Your task to perform on an android device: change timer sound Image 0: 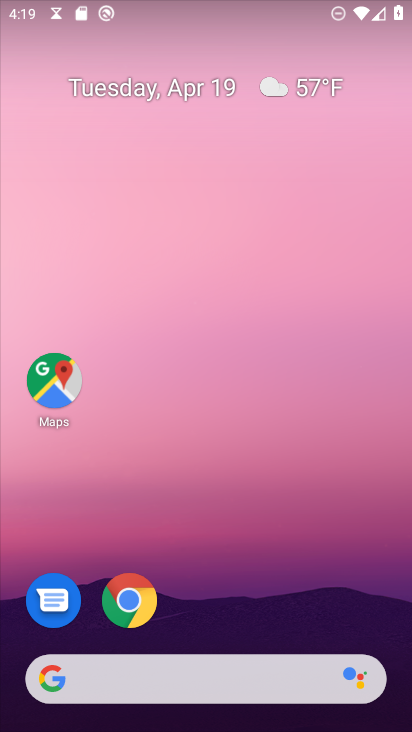
Step 0: drag from (317, 615) to (319, 72)
Your task to perform on an android device: change timer sound Image 1: 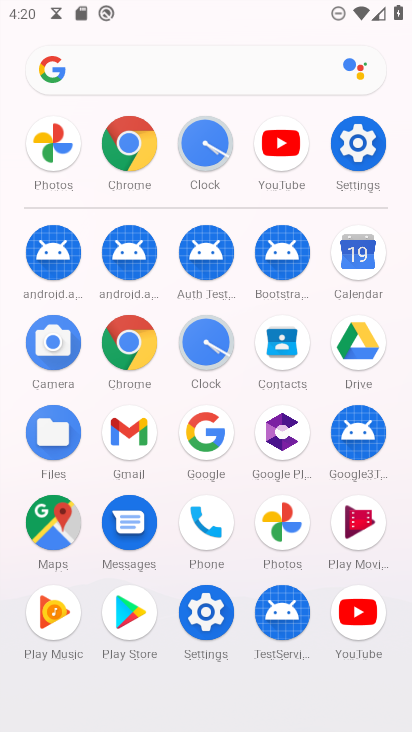
Step 1: click (210, 354)
Your task to perform on an android device: change timer sound Image 2: 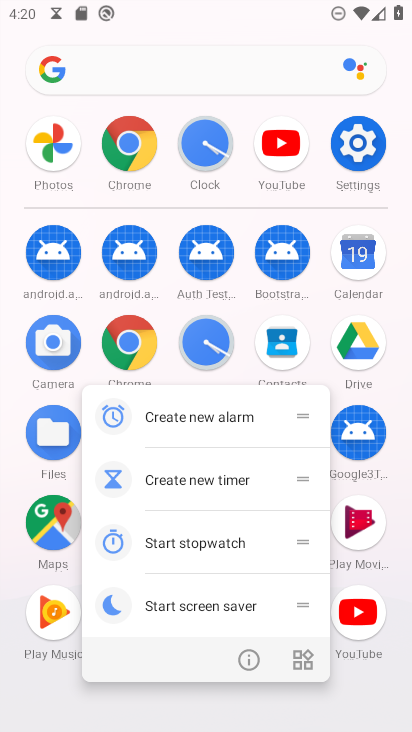
Step 2: click (214, 333)
Your task to perform on an android device: change timer sound Image 3: 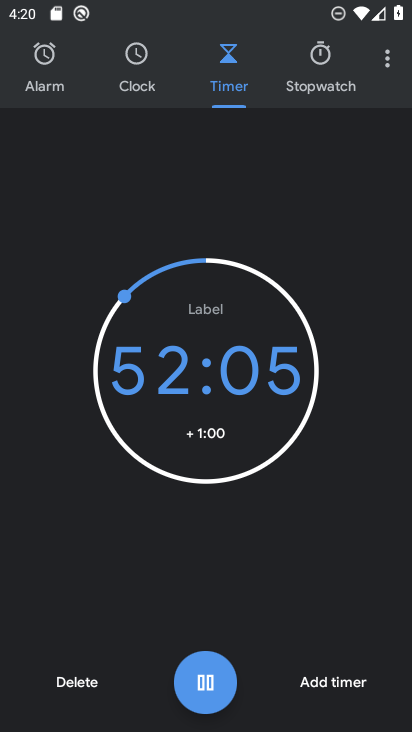
Step 3: click (384, 50)
Your task to perform on an android device: change timer sound Image 4: 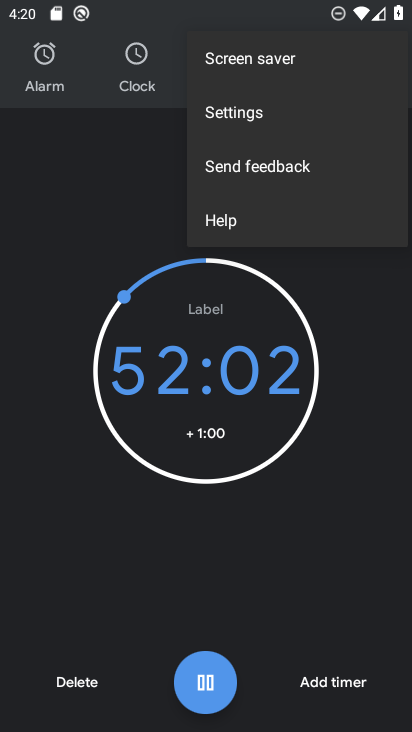
Step 4: click (356, 101)
Your task to perform on an android device: change timer sound Image 5: 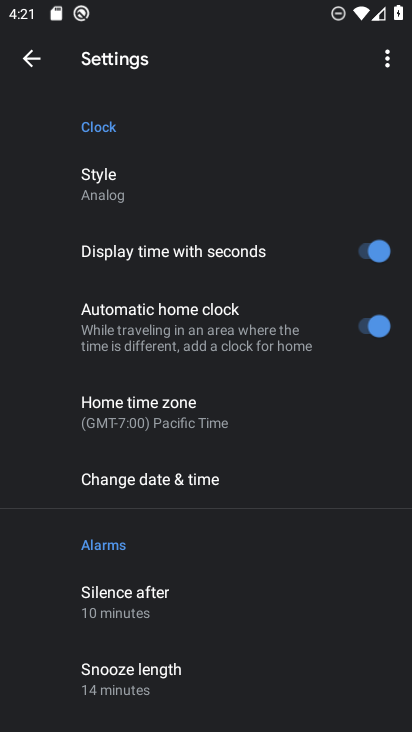
Step 5: drag from (335, 625) to (288, 154)
Your task to perform on an android device: change timer sound Image 6: 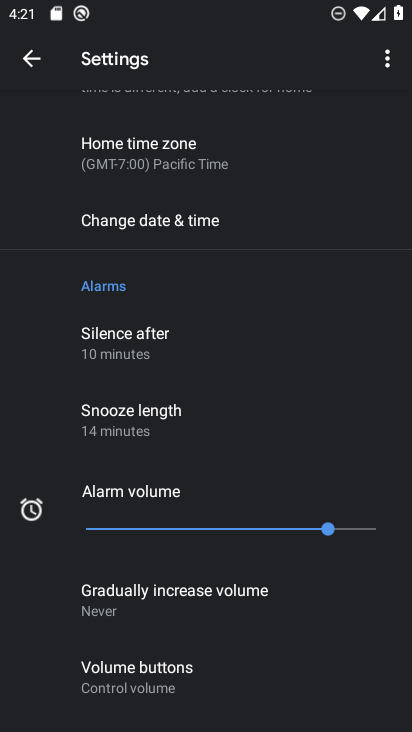
Step 6: drag from (284, 635) to (258, 218)
Your task to perform on an android device: change timer sound Image 7: 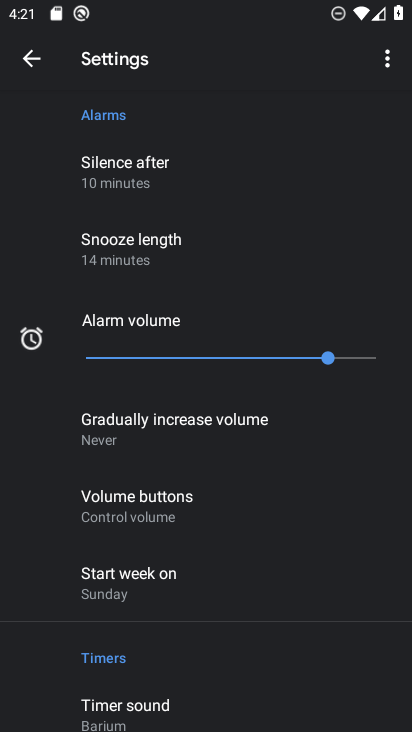
Step 7: drag from (272, 604) to (225, 137)
Your task to perform on an android device: change timer sound Image 8: 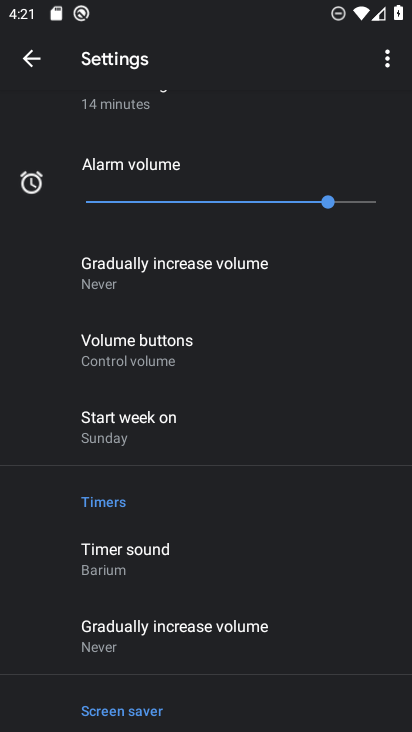
Step 8: click (256, 556)
Your task to perform on an android device: change timer sound Image 9: 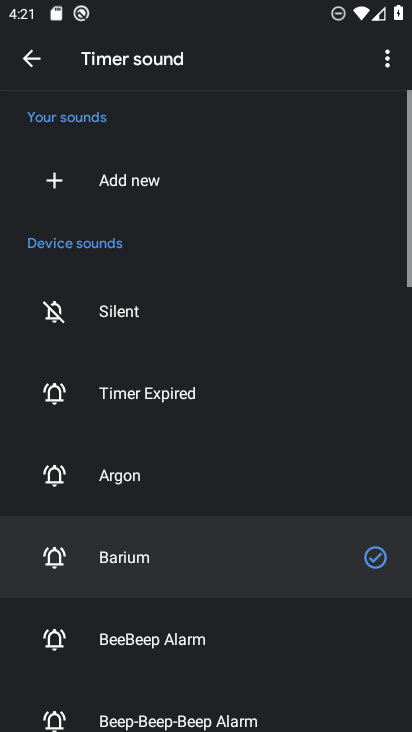
Step 9: drag from (256, 556) to (254, 275)
Your task to perform on an android device: change timer sound Image 10: 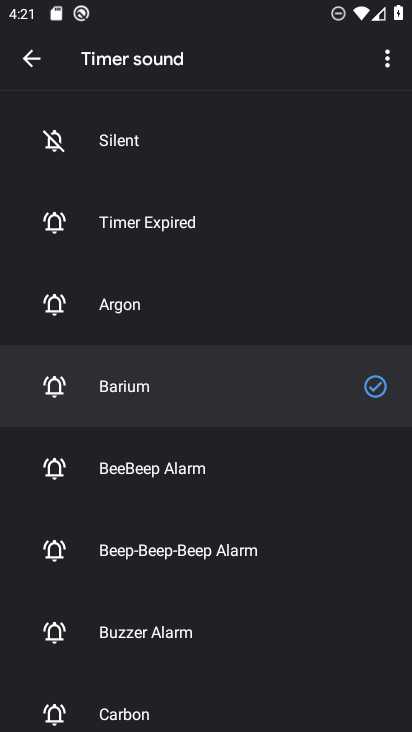
Step 10: click (243, 458)
Your task to perform on an android device: change timer sound Image 11: 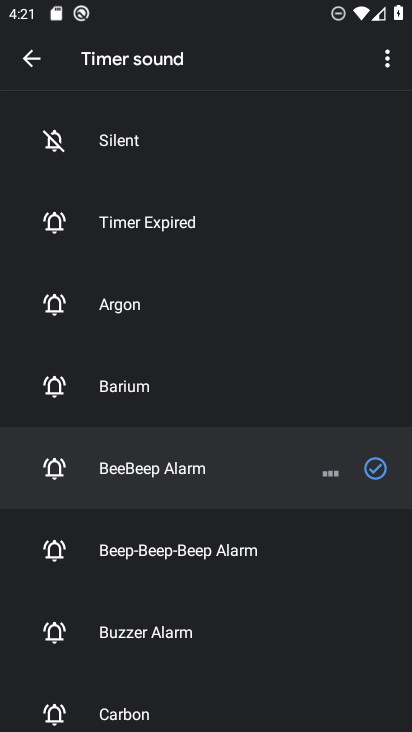
Step 11: task complete